Your task to perform on an android device: manage bookmarks in the chrome app Image 0: 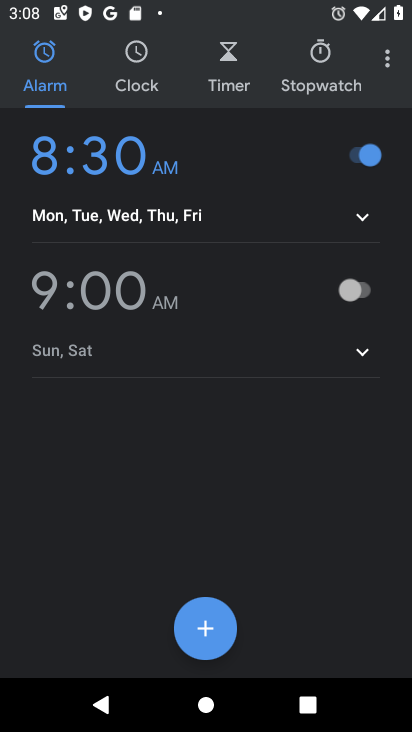
Step 0: click (386, 57)
Your task to perform on an android device: manage bookmarks in the chrome app Image 1: 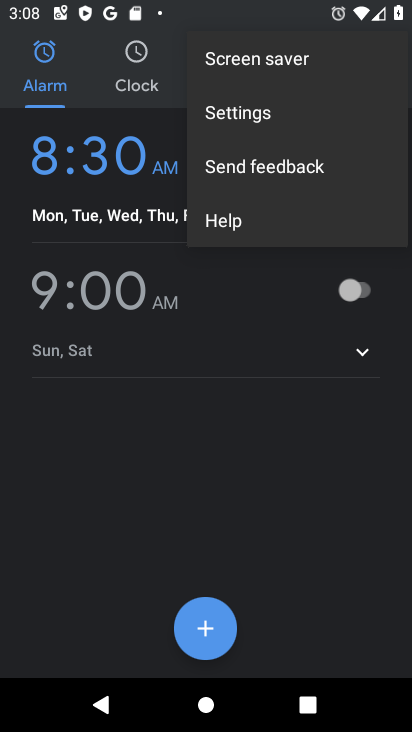
Step 1: click (271, 110)
Your task to perform on an android device: manage bookmarks in the chrome app Image 2: 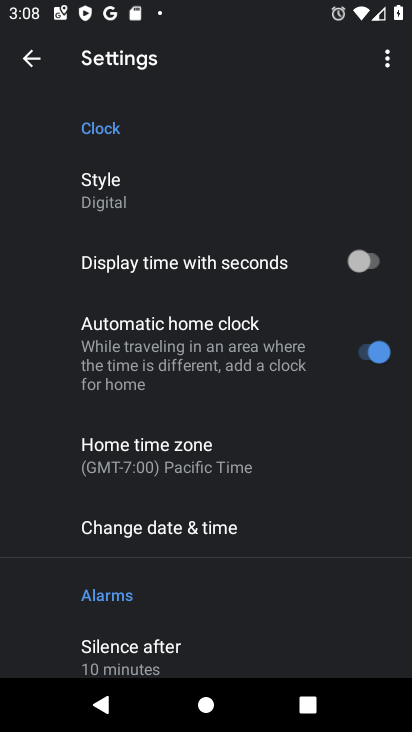
Step 2: drag from (214, 626) to (209, 393)
Your task to perform on an android device: manage bookmarks in the chrome app Image 3: 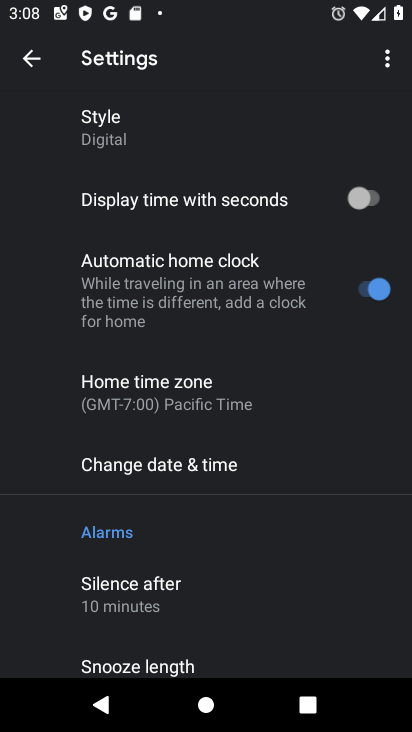
Step 3: press back button
Your task to perform on an android device: manage bookmarks in the chrome app Image 4: 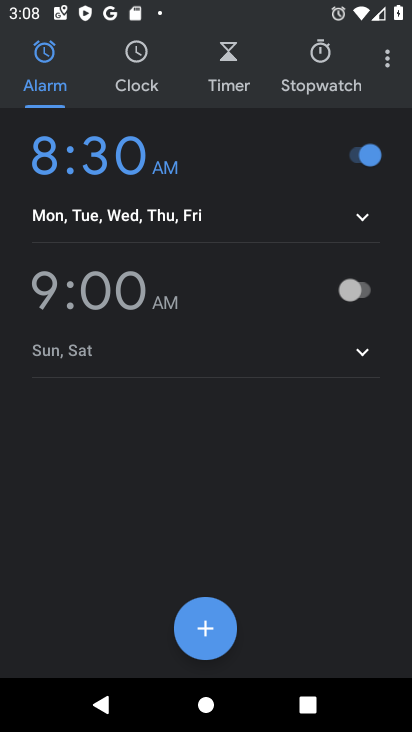
Step 4: press back button
Your task to perform on an android device: manage bookmarks in the chrome app Image 5: 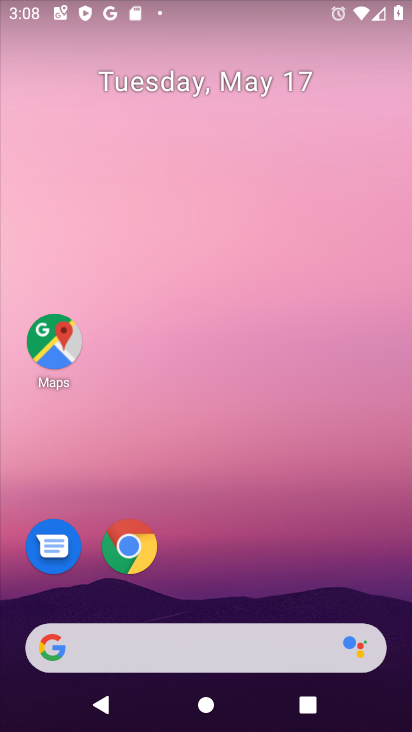
Step 5: click (137, 544)
Your task to perform on an android device: manage bookmarks in the chrome app Image 6: 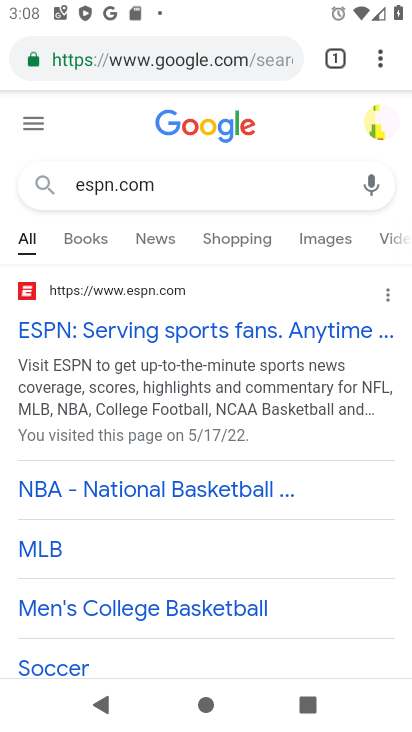
Step 6: click (376, 51)
Your task to perform on an android device: manage bookmarks in the chrome app Image 7: 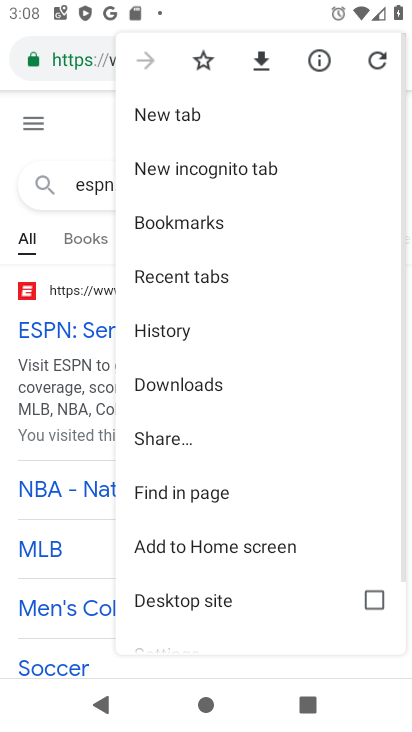
Step 7: click (191, 213)
Your task to perform on an android device: manage bookmarks in the chrome app Image 8: 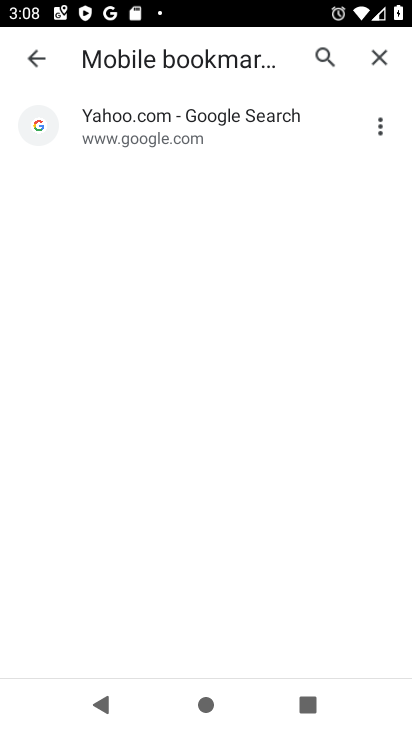
Step 8: click (377, 122)
Your task to perform on an android device: manage bookmarks in the chrome app Image 9: 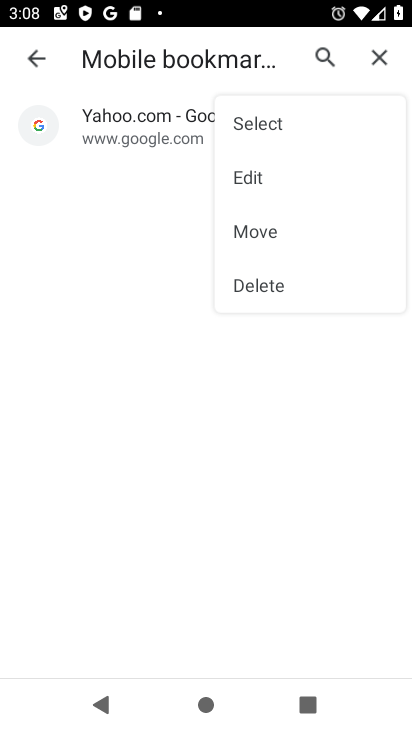
Step 9: click (271, 283)
Your task to perform on an android device: manage bookmarks in the chrome app Image 10: 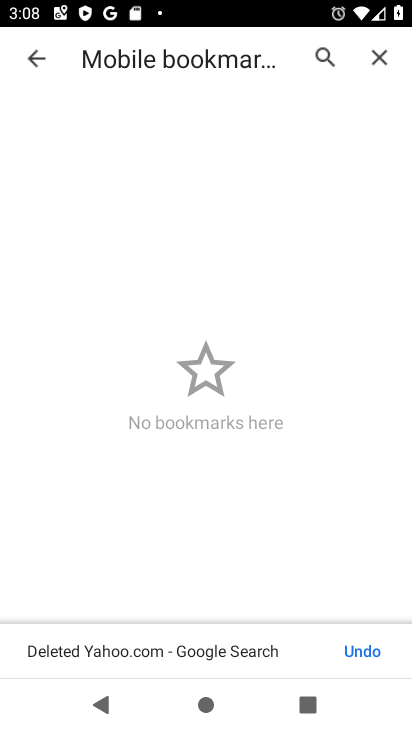
Step 10: task complete